Your task to perform on an android device: Open Youtube and go to the subscriptions tab Image 0: 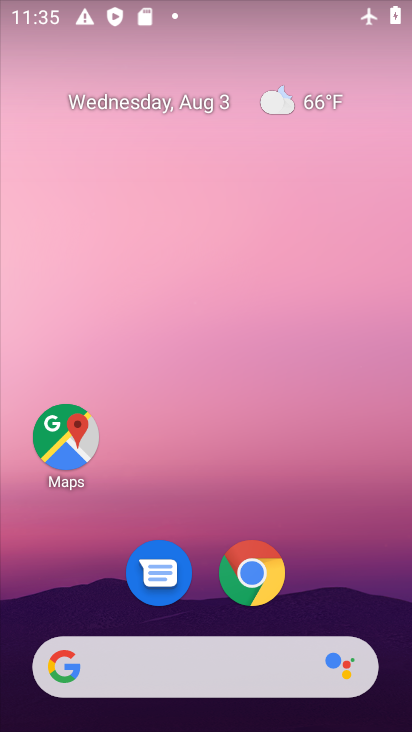
Step 0: drag from (343, 586) to (305, 111)
Your task to perform on an android device: Open Youtube and go to the subscriptions tab Image 1: 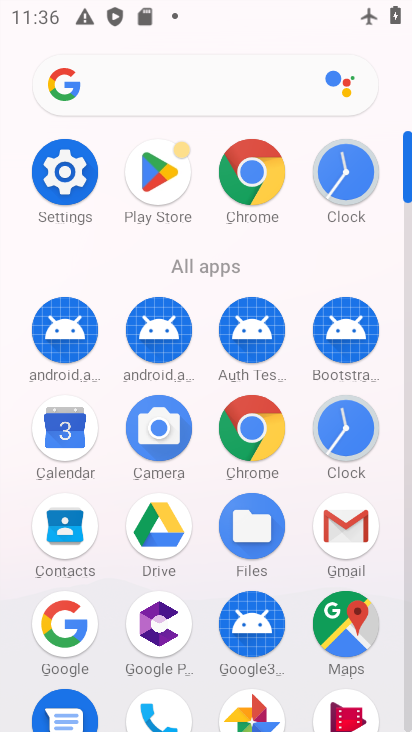
Step 1: drag from (310, 652) to (313, 215)
Your task to perform on an android device: Open Youtube and go to the subscriptions tab Image 2: 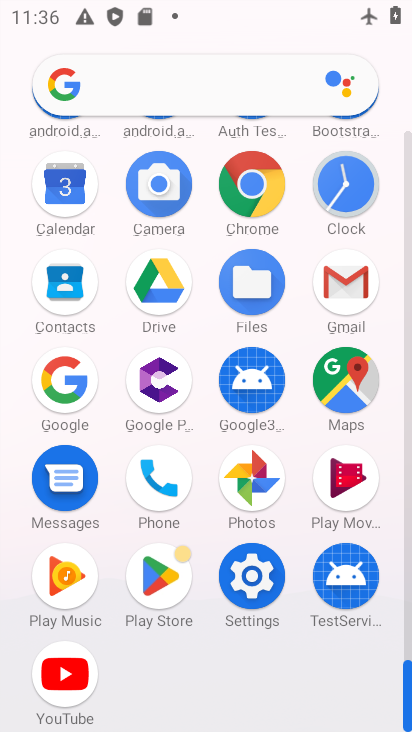
Step 2: click (46, 680)
Your task to perform on an android device: Open Youtube and go to the subscriptions tab Image 3: 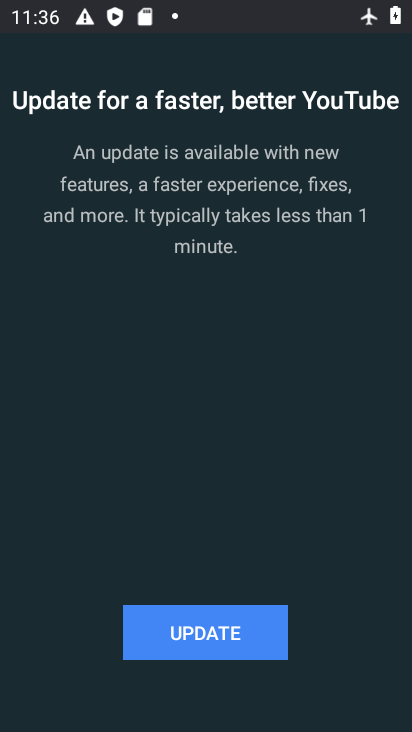
Step 3: click (213, 634)
Your task to perform on an android device: Open Youtube and go to the subscriptions tab Image 4: 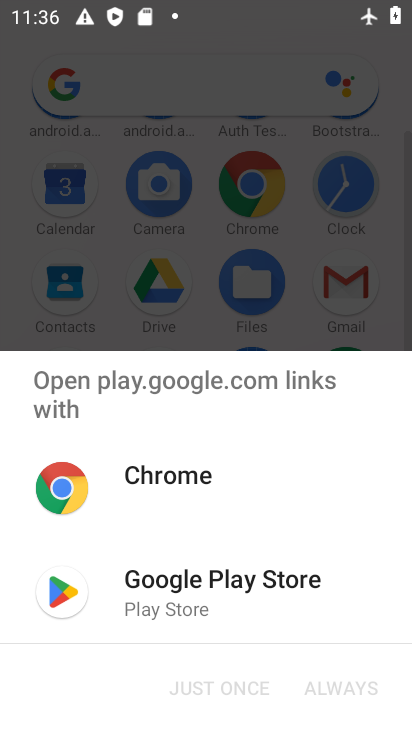
Step 4: click (213, 609)
Your task to perform on an android device: Open Youtube and go to the subscriptions tab Image 5: 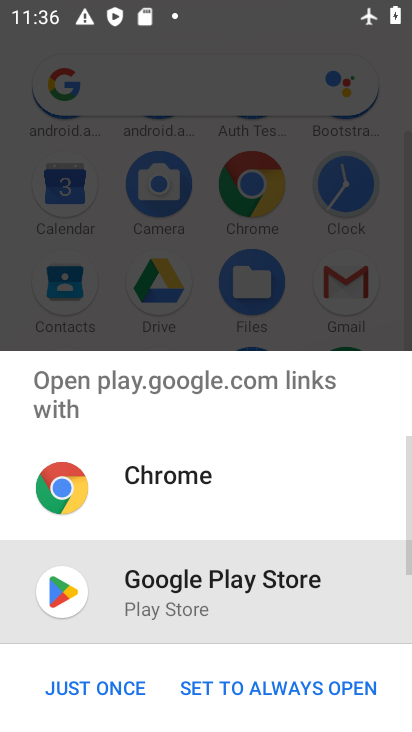
Step 5: click (108, 675)
Your task to perform on an android device: Open Youtube and go to the subscriptions tab Image 6: 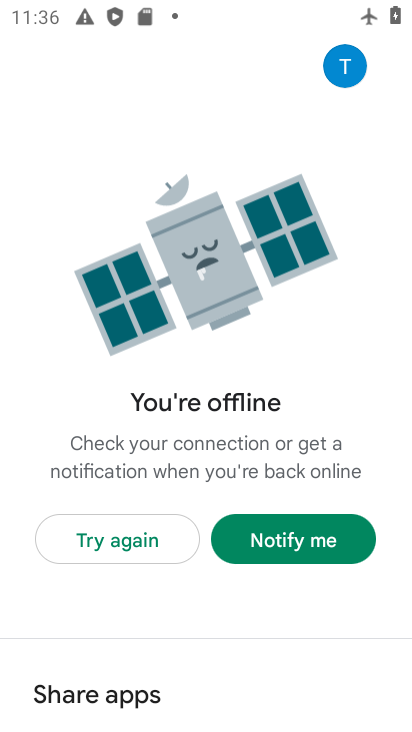
Step 6: task complete